Your task to perform on an android device: Open CNN.com Image 0: 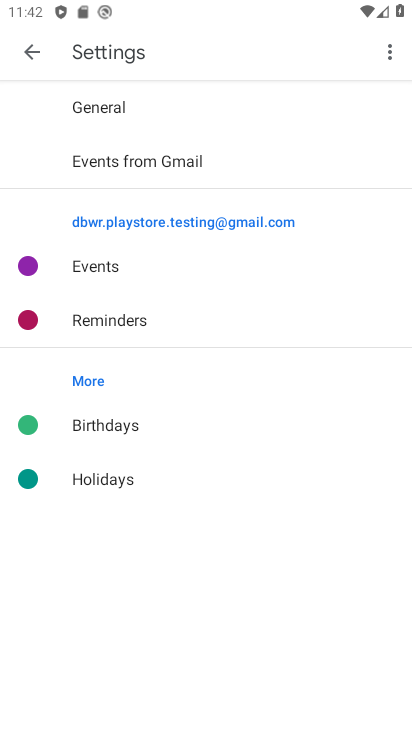
Step 0: press home button
Your task to perform on an android device: Open CNN.com Image 1: 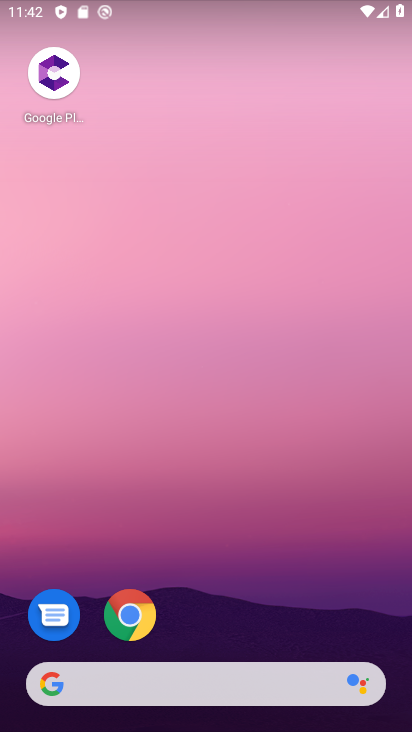
Step 1: click (134, 612)
Your task to perform on an android device: Open CNN.com Image 2: 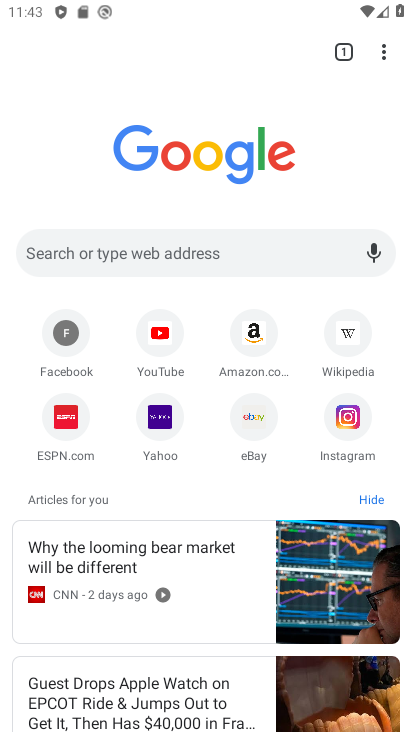
Step 2: click (95, 256)
Your task to perform on an android device: Open CNN.com Image 3: 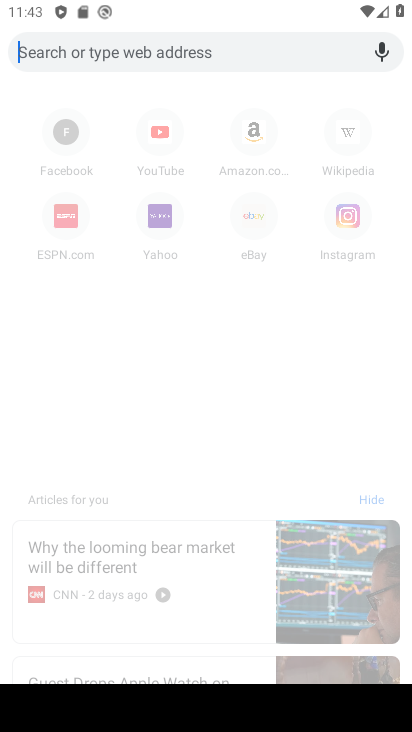
Step 3: type "cnn.com"
Your task to perform on an android device: Open CNN.com Image 4: 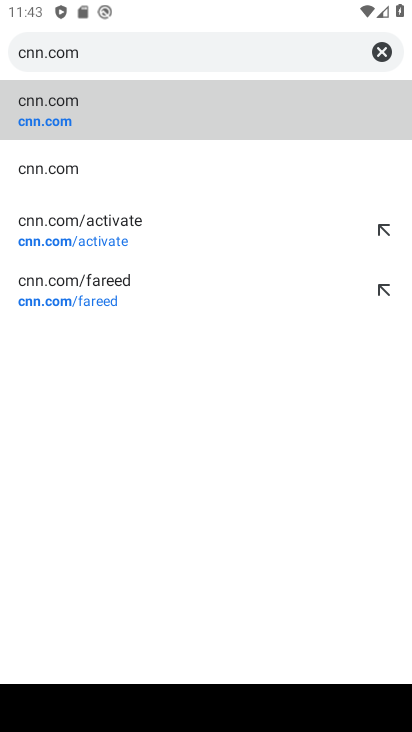
Step 4: click (99, 115)
Your task to perform on an android device: Open CNN.com Image 5: 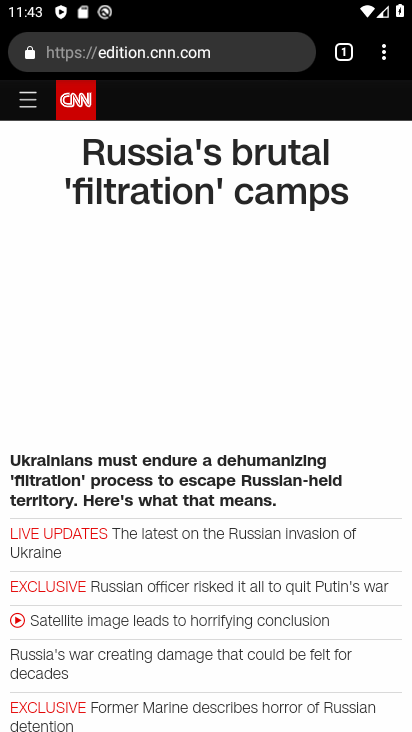
Step 5: task complete